Your task to perform on an android device: turn on location history Image 0: 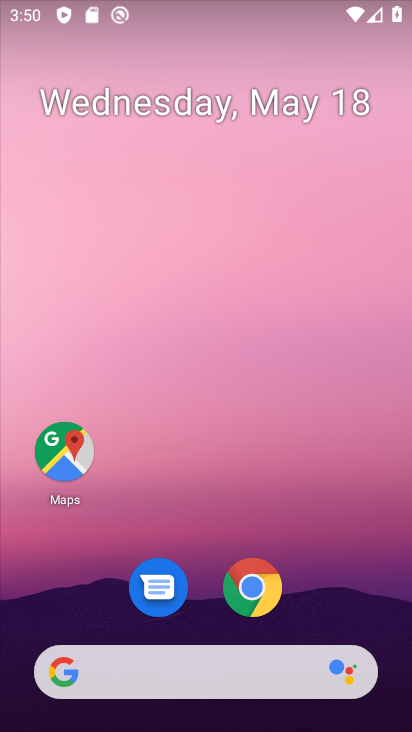
Step 0: drag from (328, 459) to (249, 18)
Your task to perform on an android device: turn on location history Image 1: 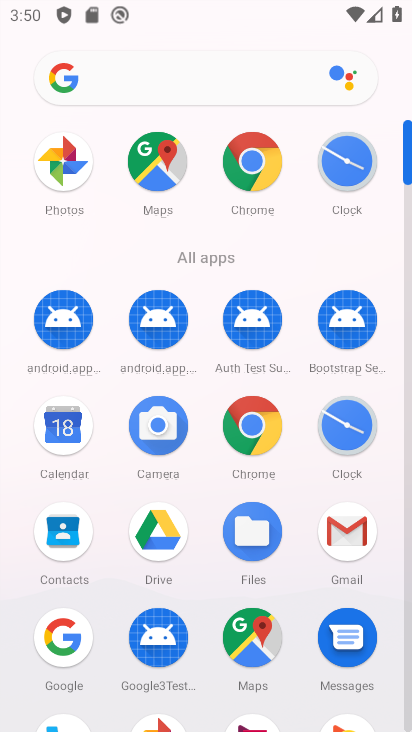
Step 1: drag from (313, 584) to (266, 114)
Your task to perform on an android device: turn on location history Image 2: 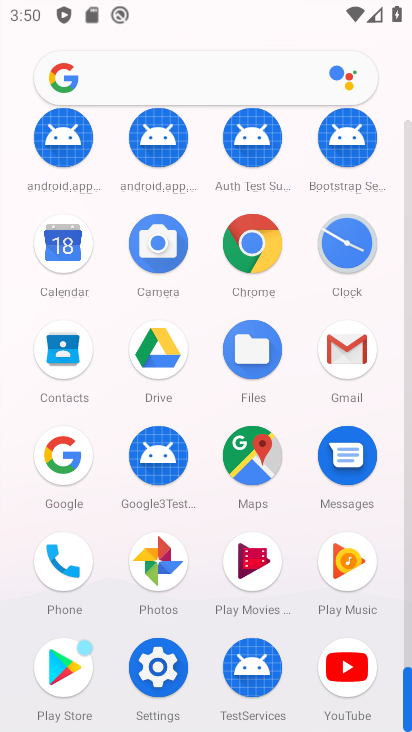
Step 2: click (175, 667)
Your task to perform on an android device: turn on location history Image 3: 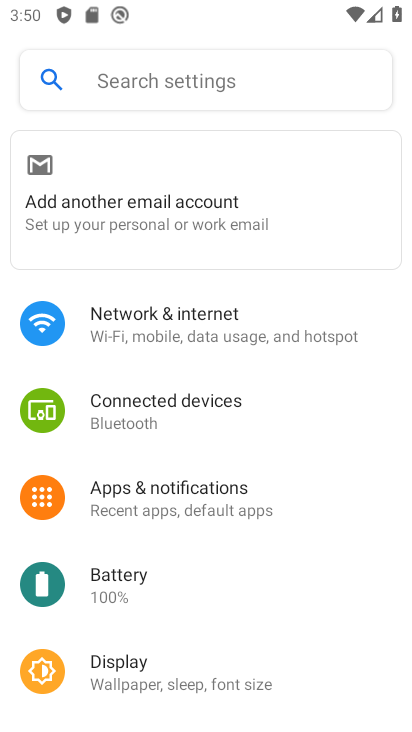
Step 3: drag from (269, 228) to (262, 96)
Your task to perform on an android device: turn on location history Image 4: 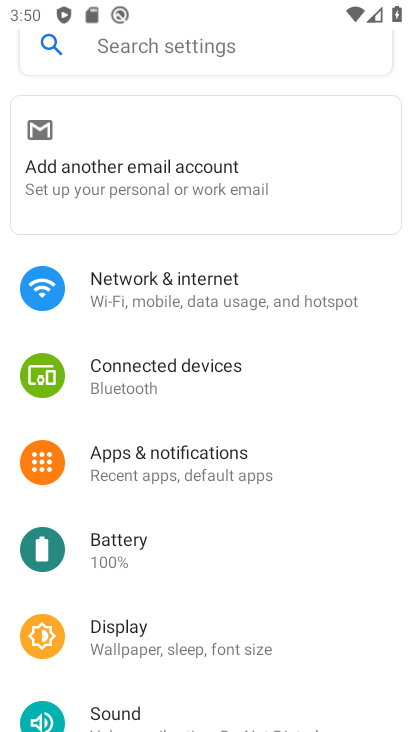
Step 4: drag from (226, 602) to (250, 160)
Your task to perform on an android device: turn on location history Image 5: 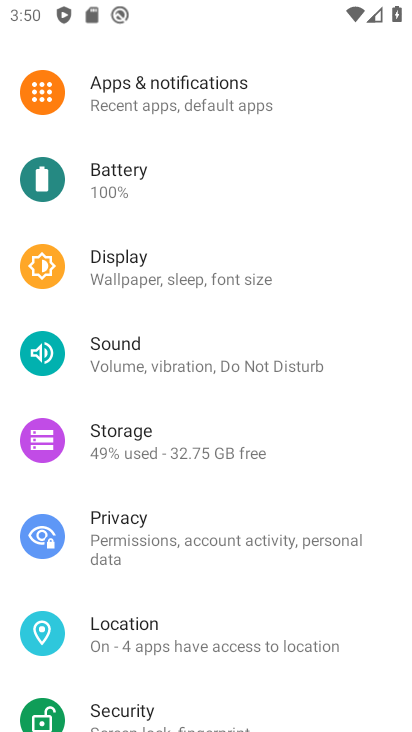
Step 5: click (216, 640)
Your task to perform on an android device: turn on location history Image 6: 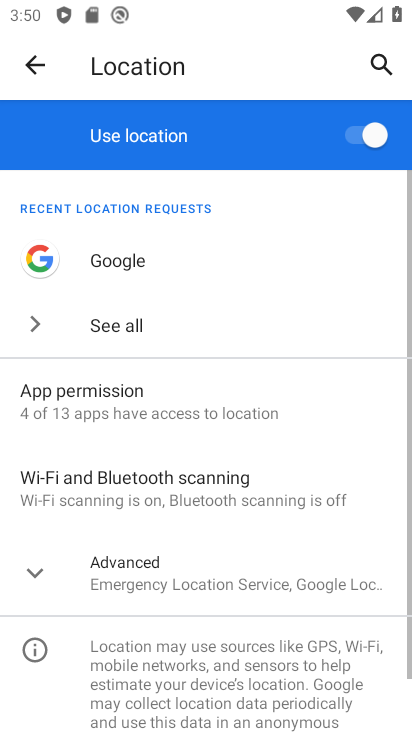
Step 6: click (245, 581)
Your task to perform on an android device: turn on location history Image 7: 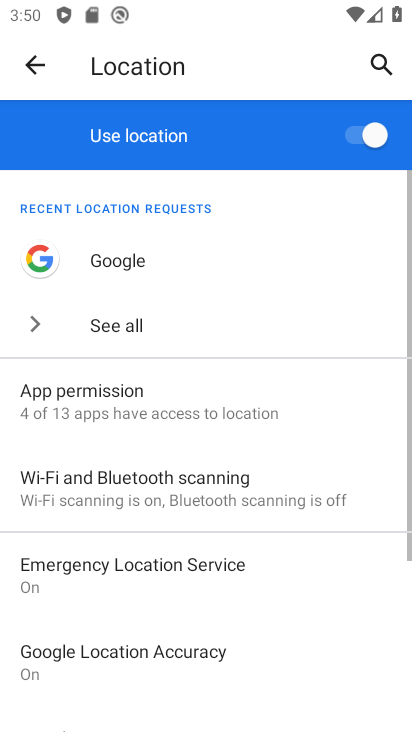
Step 7: drag from (269, 602) to (276, 319)
Your task to perform on an android device: turn on location history Image 8: 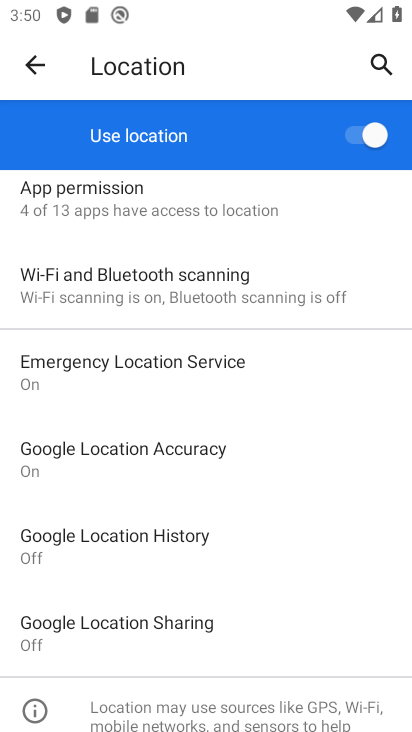
Step 8: click (212, 529)
Your task to perform on an android device: turn on location history Image 9: 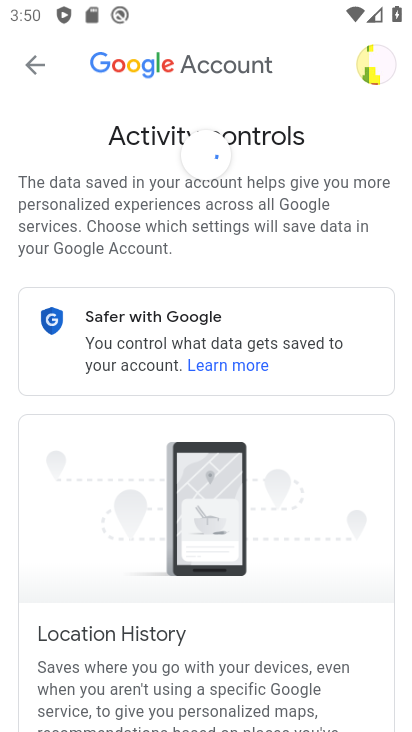
Step 9: drag from (308, 567) to (292, 46)
Your task to perform on an android device: turn on location history Image 10: 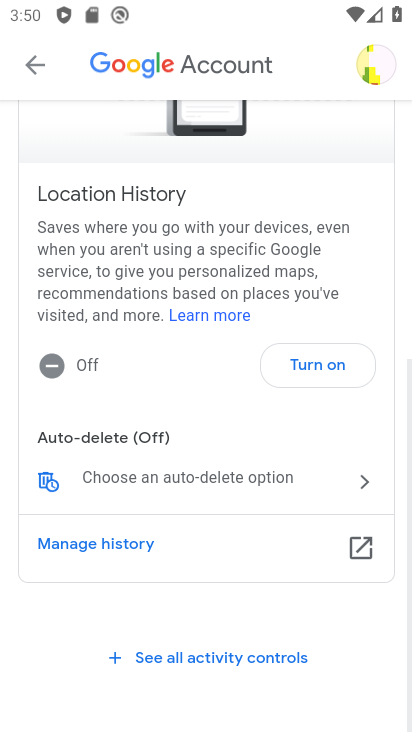
Step 10: drag from (326, 491) to (310, 286)
Your task to perform on an android device: turn on location history Image 11: 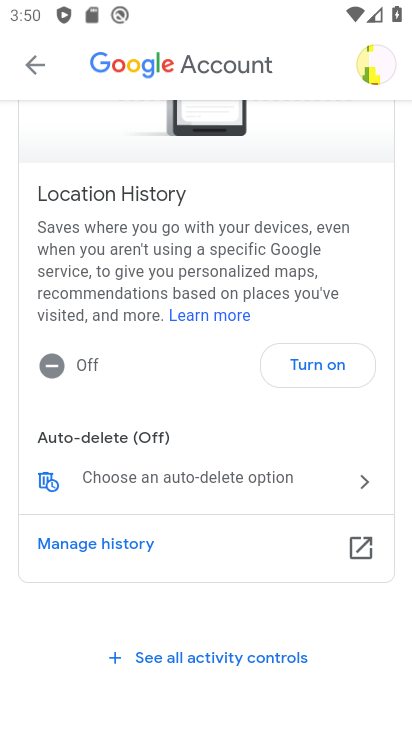
Step 11: click (324, 352)
Your task to perform on an android device: turn on location history Image 12: 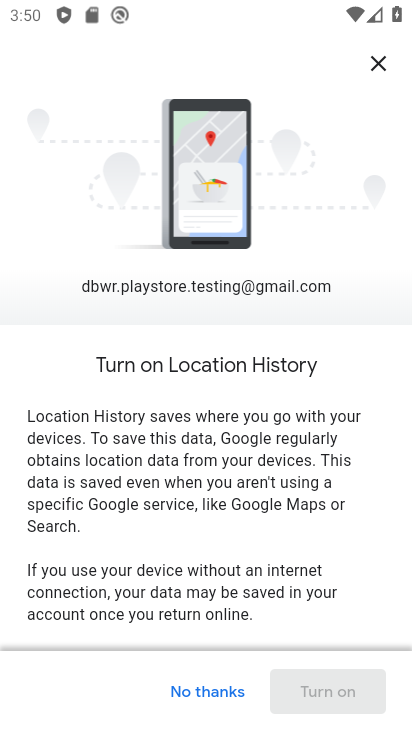
Step 12: drag from (220, 531) to (266, 10)
Your task to perform on an android device: turn on location history Image 13: 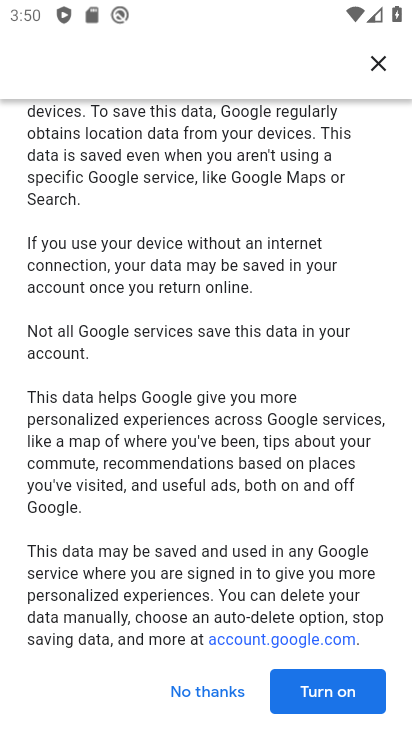
Step 13: click (343, 698)
Your task to perform on an android device: turn on location history Image 14: 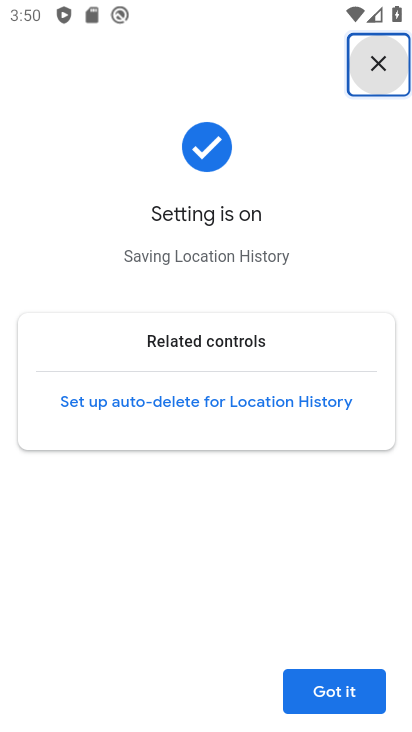
Step 14: click (331, 697)
Your task to perform on an android device: turn on location history Image 15: 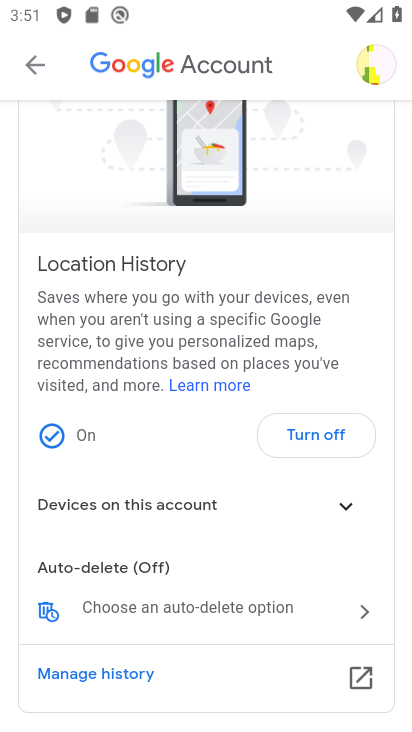
Step 15: task complete